Your task to perform on an android device: turn on data saver in the chrome app Image 0: 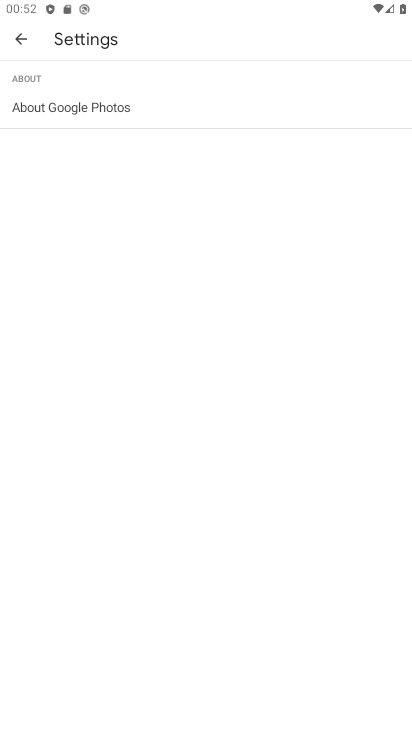
Step 0: press home button
Your task to perform on an android device: turn on data saver in the chrome app Image 1: 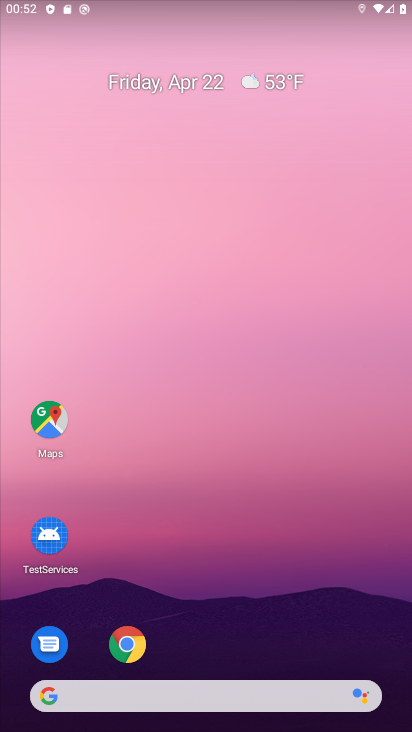
Step 1: drag from (257, 588) to (291, 179)
Your task to perform on an android device: turn on data saver in the chrome app Image 2: 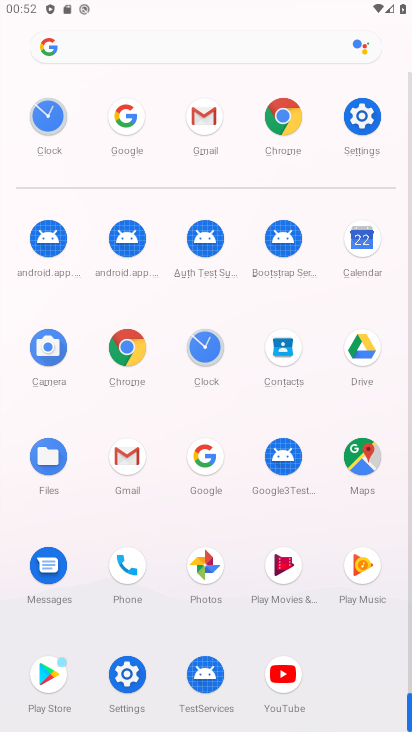
Step 2: click (125, 353)
Your task to perform on an android device: turn on data saver in the chrome app Image 3: 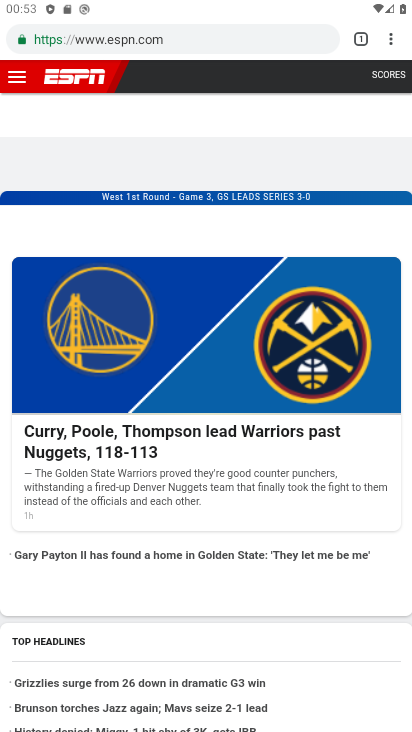
Step 3: click (393, 34)
Your task to perform on an android device: turn on data saver in the chrome app Image 4: 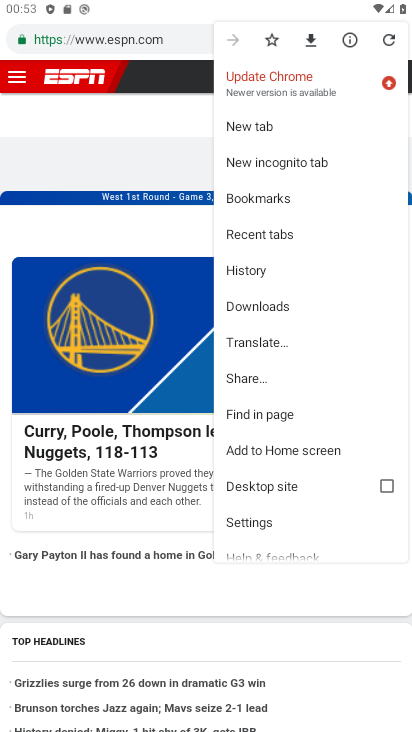
Step 4: drag from (297, 472) to (336, 156)
Your task to perform on an android device: turn on data saver in the chrome app Image 5: 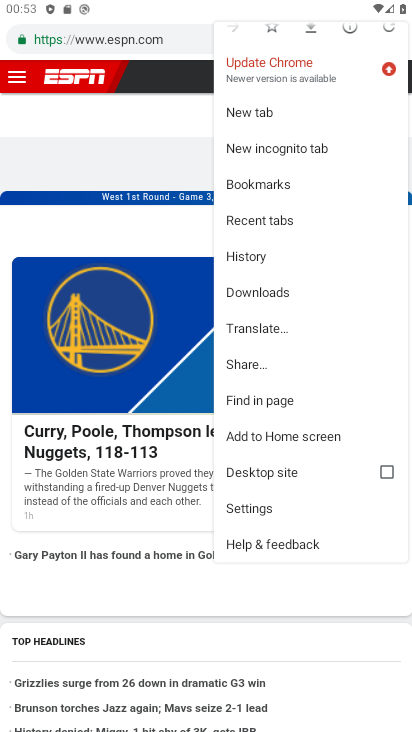
Step 5: click (254, 506)
Your task to perform on an android device: turn on data saver in the chrome app Image 6: 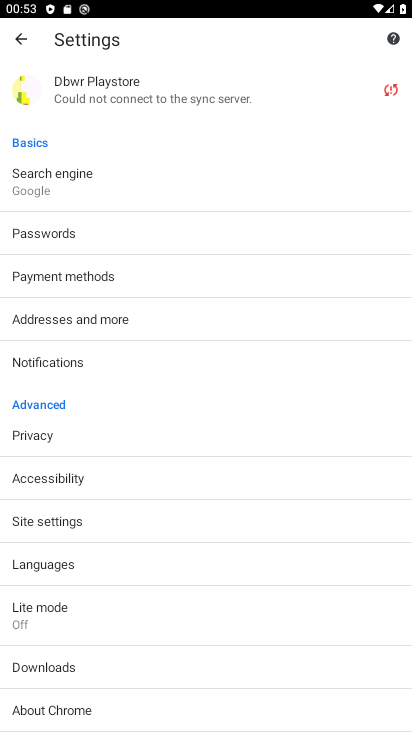
Step 6: click (118, 601)
Your task to perform on an android device: turn on data saver in the chrome app Image 7: 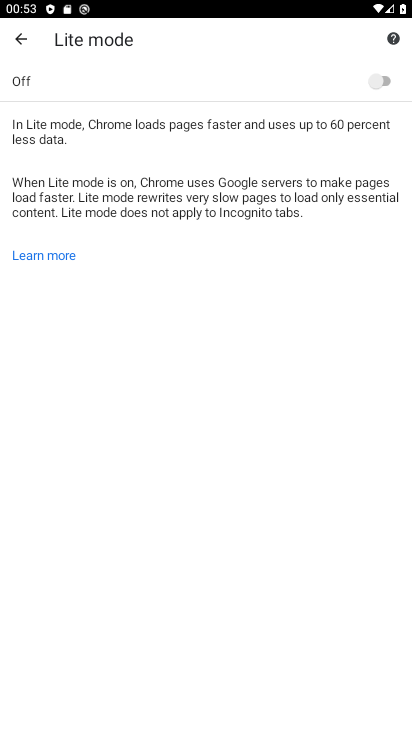
Step 7: click (353, 78)
Your task to perform on an android device: turn on data saver in the chrome app Image 8: 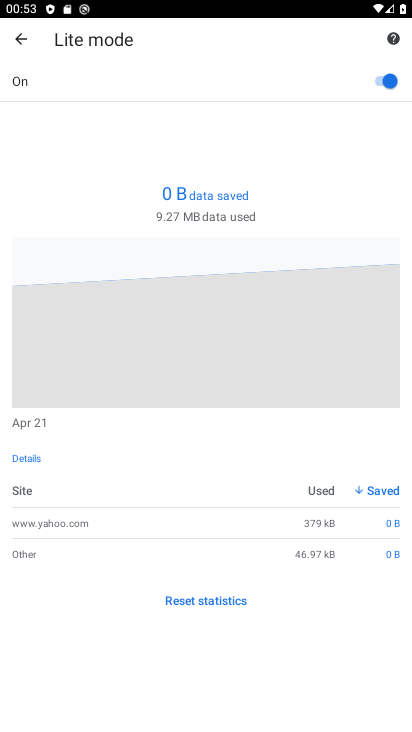
Step 8: task complete